Your task to perform on an android device: check storage Image 0: 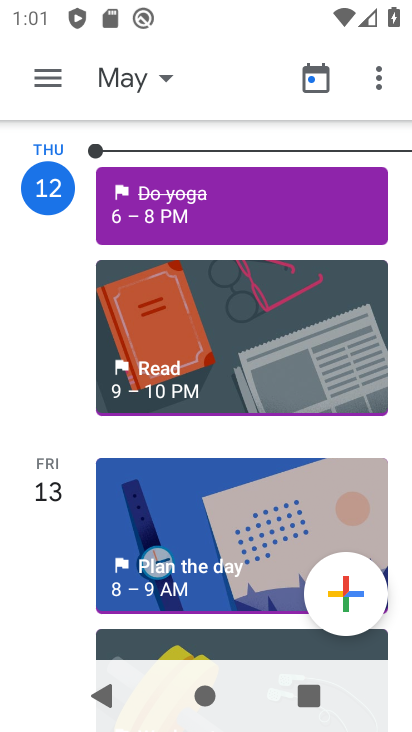
Step 0: press home button
Your task to perform on an android device: check storage Image 1: 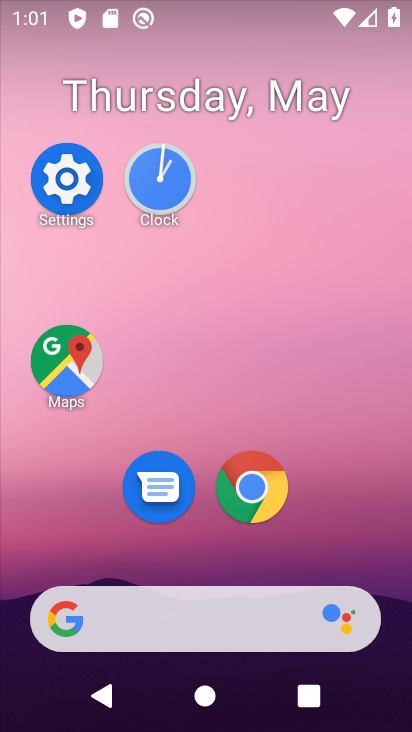
Step 1: click (67, 178)
Your task to perform on an android device: check storage Image 2: 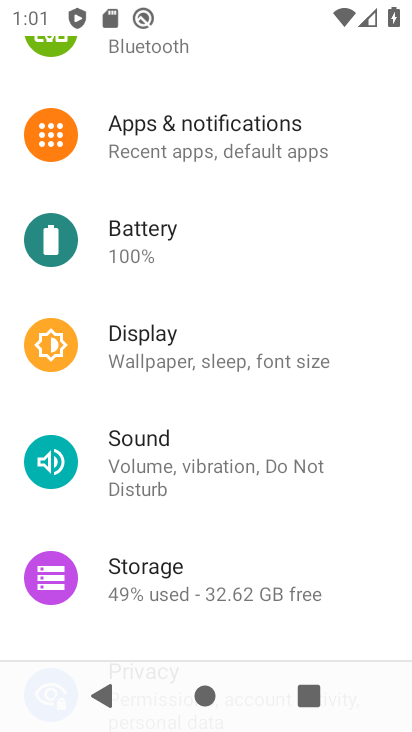
Step 2: click (204, 432)
Your task to perform on an android device: check storage Image 3: 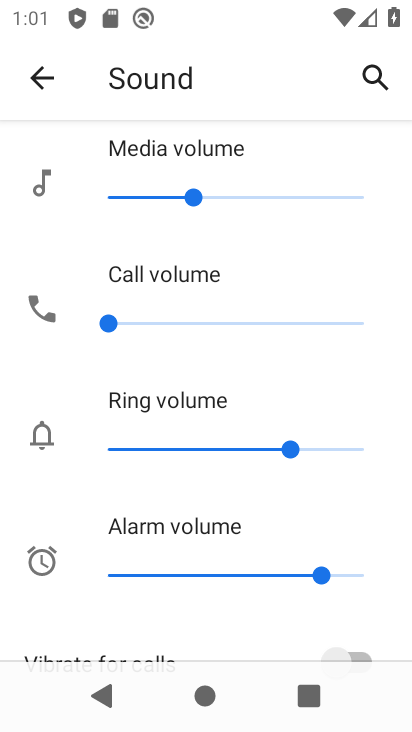
Step 3: press back button
Your task to perform on an android device: check storage Image 4: 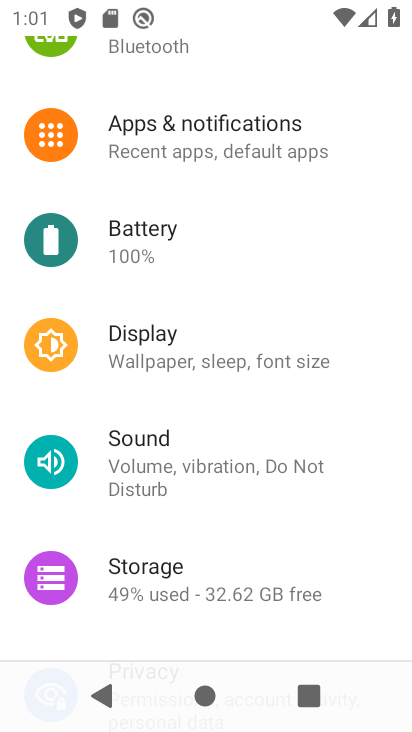
Step 4: click (186, 568)
Your task to perform on an android device: check storage Image 5: 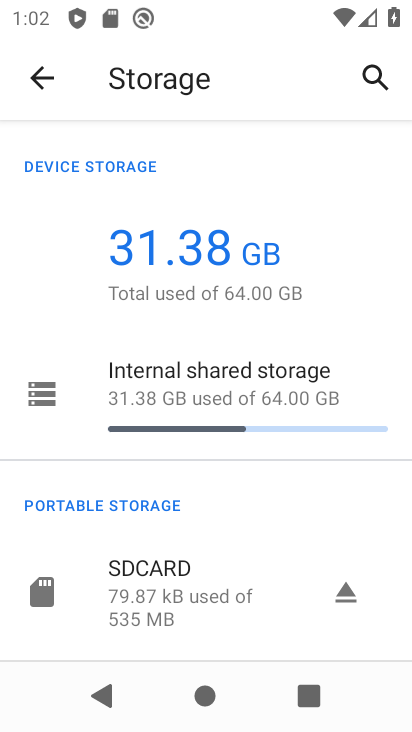
Step 5: task complete